Your task to perform on an android device: Clear the shopping cart on amazon.com. Search for usb-a to usb-b on amazon.com, select the first entry, add it to the cart, then select checkout. Image 0: 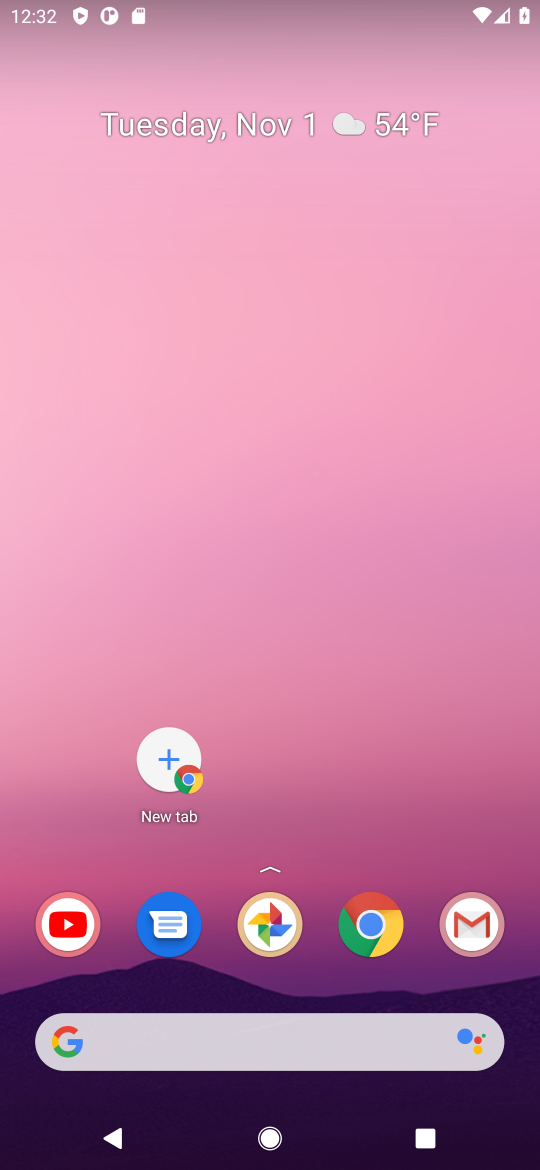
Step 0: click (383, 926)
Your task to perform on an android device: Clear the shopping cart on amazon.com. Search for usb-a to usb-b on amazon.com, select the first entry, add it to the cart, then select checkout. Image 1: 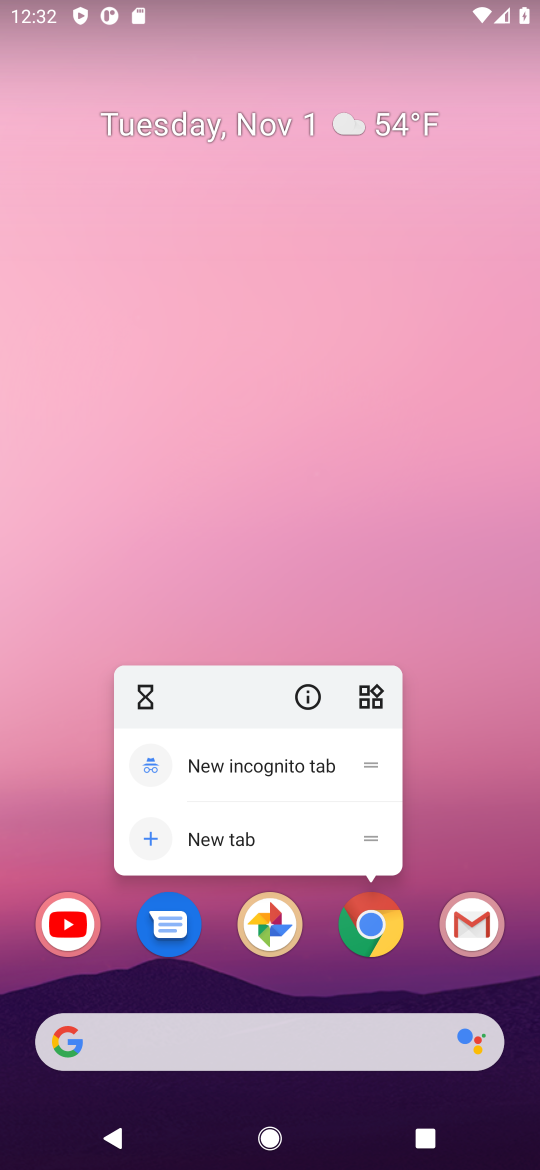
Step 1: click (382, 925)
Your task to perform on an android device: Clear the shopping cart on amazon.com. Search for usb-a to usb-b on amazon.com, select the first entry, add it to the cart, then select checkout. Image 2: 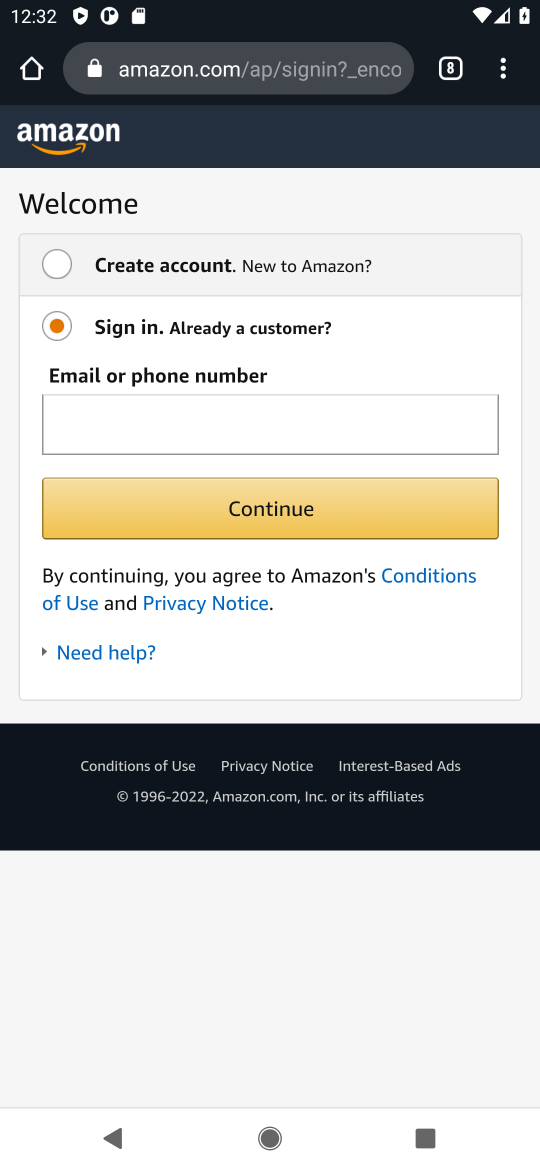
Step 2: click (270, 67)
Your task to perform on an android device: Clear the shopping cart on amazon.com. Search for usb-a to usb-b on amazon.com, select the first entry, add it to the cart, then select checkout. Image 3: 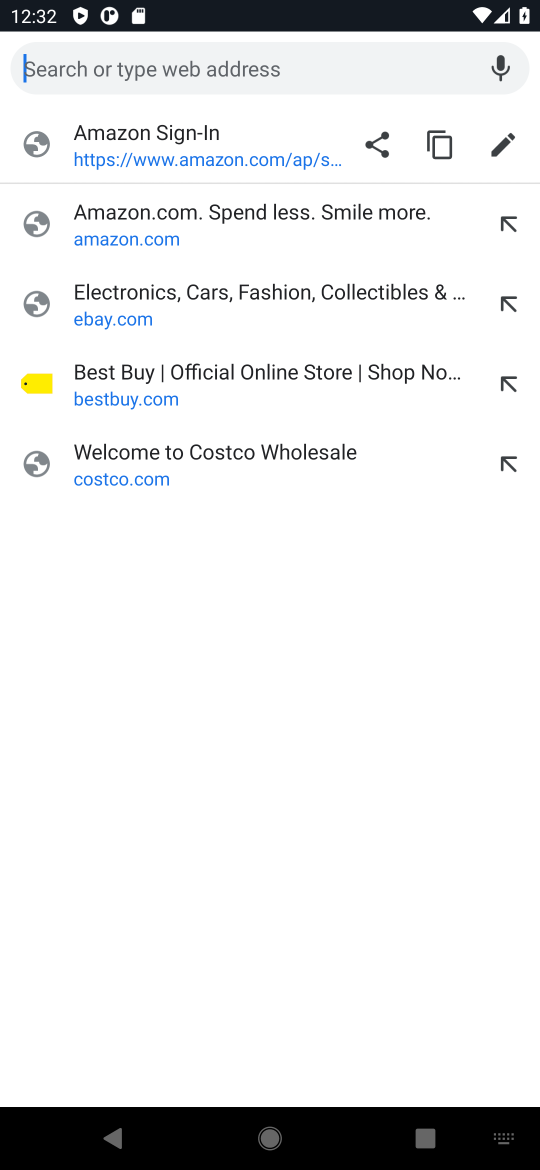
Step 3: click (134, 222)
Your task to perform on an android device: Clear the shopping cart on amazon.com. Search for usb-a to usb-b on amazon.com, select the first entry, add it to the cart, then select checkout. Image 4: 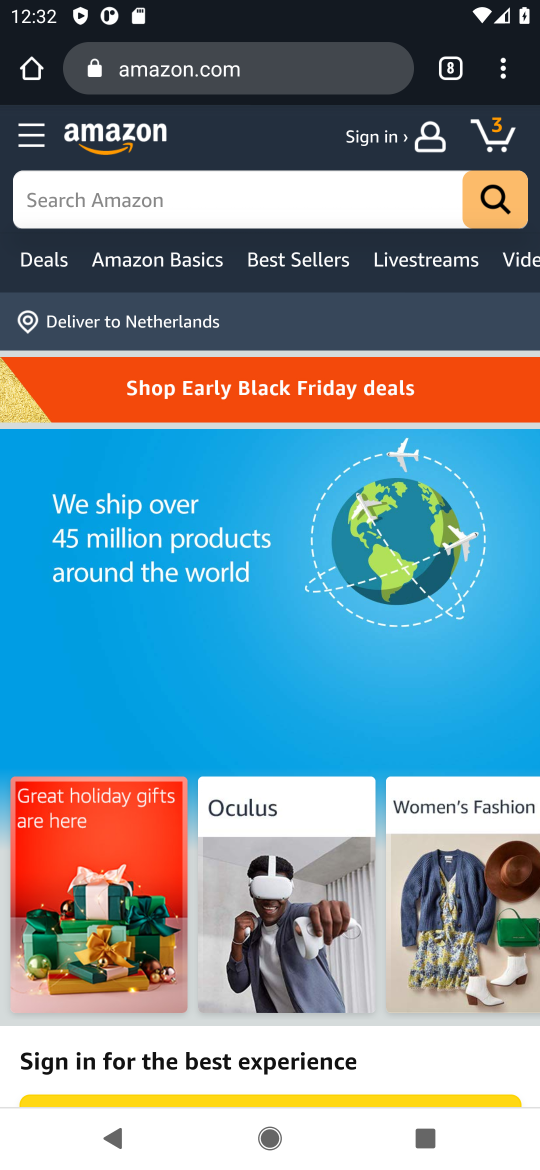
Step 4: click (171, 199)
Your task to perform on an android device: Clear the shopping cart on amazon.com. Search for usb-a to usb-b on amazon.com, select the first entry, add it to the cart, then select checkout. Image 5: 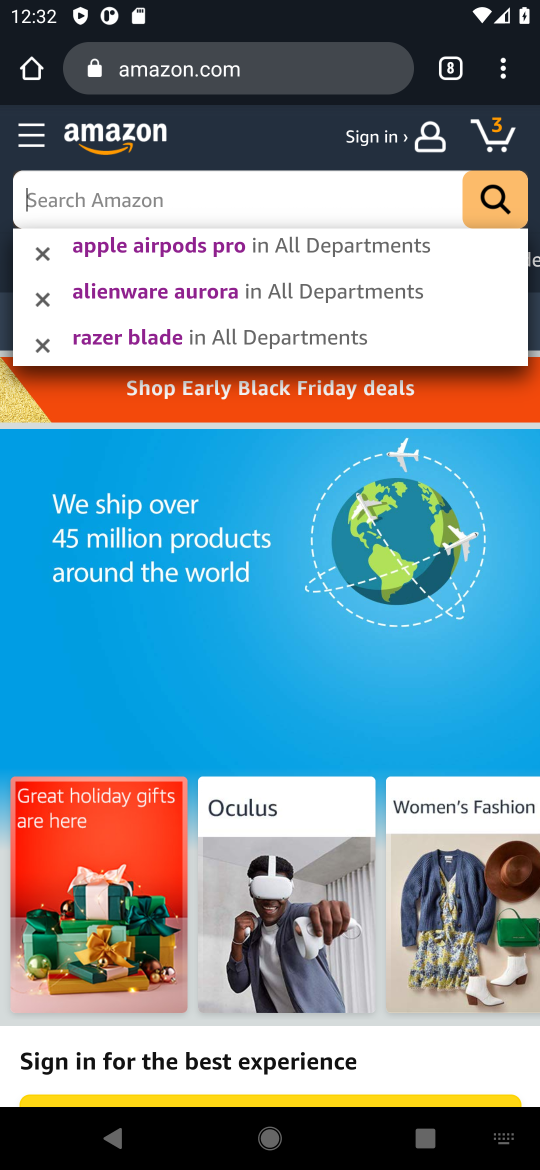
Step 5: type "usb-a to usb -b"
Your task to perform on an android device: Clear the shopping cart on amazon.com. Search for usb-a to usb-b on amazon.com, select the first entry, add it to the cart, then select checkout. Image 6: 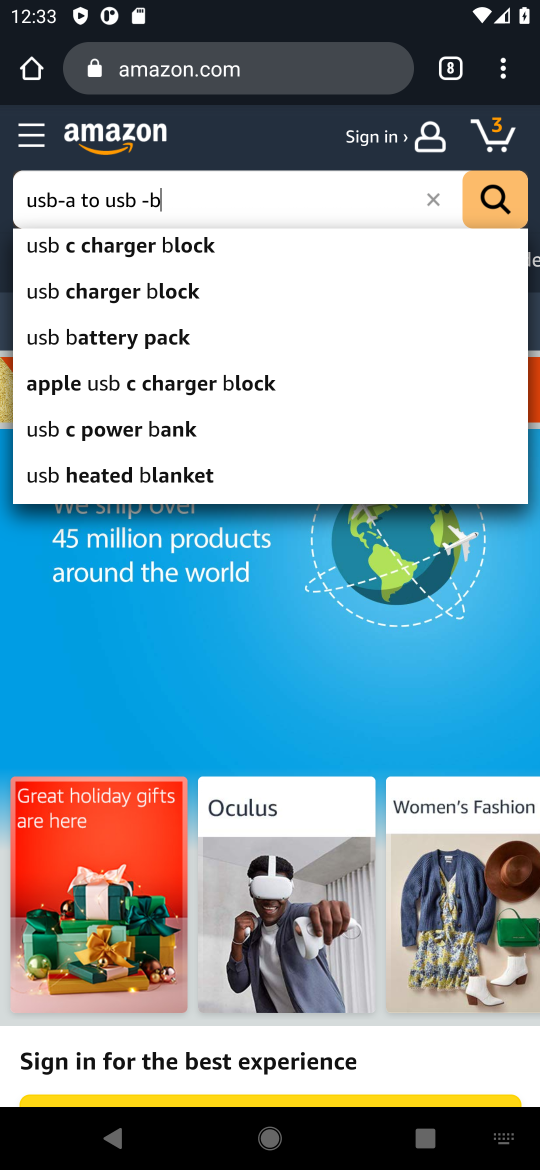
Step 6: click (507, 197)
Your task to perform on an android device: Clear the shopping cart on amazon.com. Search for usb-a to usb-b on amazon.com, select the first entry, add it to the cart, then select checkout. Image 7: 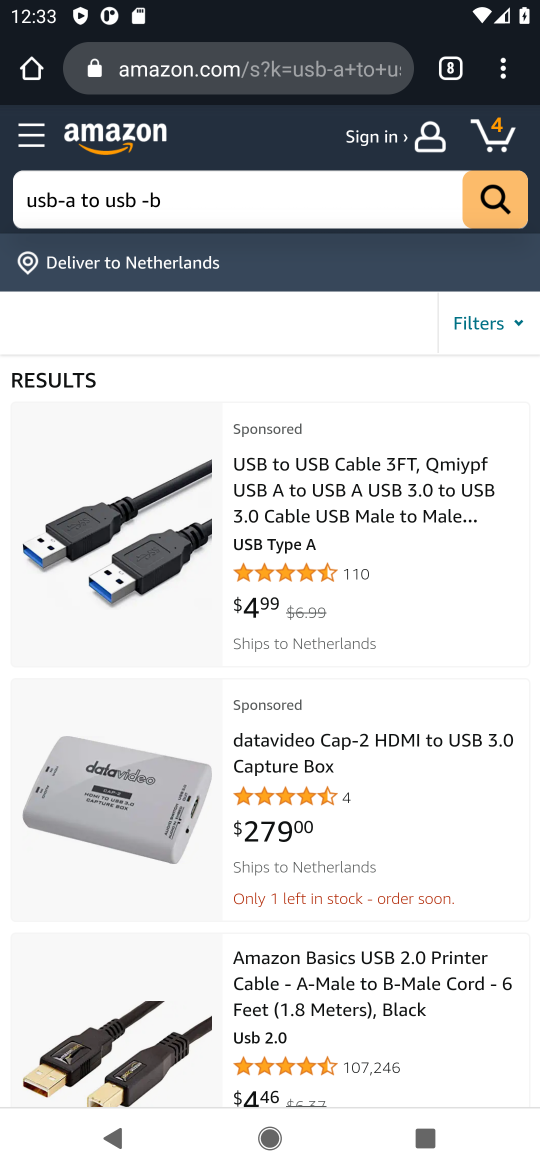
Step 7: drag from (106, 1000) to (207, 435)
Your task to perform on an android device: Clear the shopping cart on amazon.com. Search for usb-a to usb-b on amazon.com, select the first entry, add it to the cart, then select checkout. Image 8: 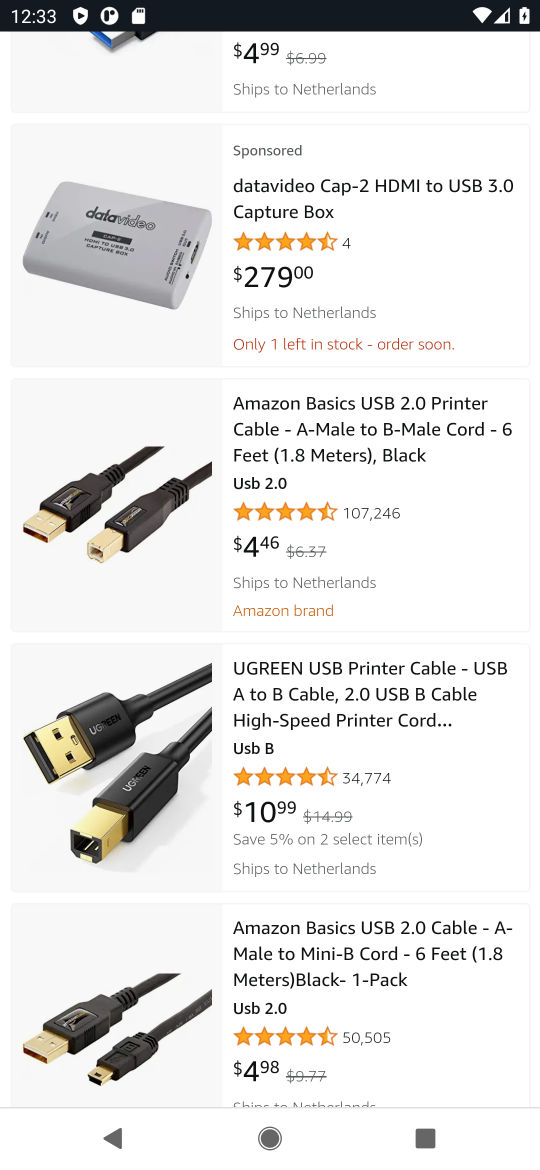
Step 8: click (117, 766)
Your task to perform on an android device: Clear the shopping cart on amazon.com. Search for usb-a to usb-b on amazon.com, select the first entry, add it to the cart, then select checkout. Image 9: 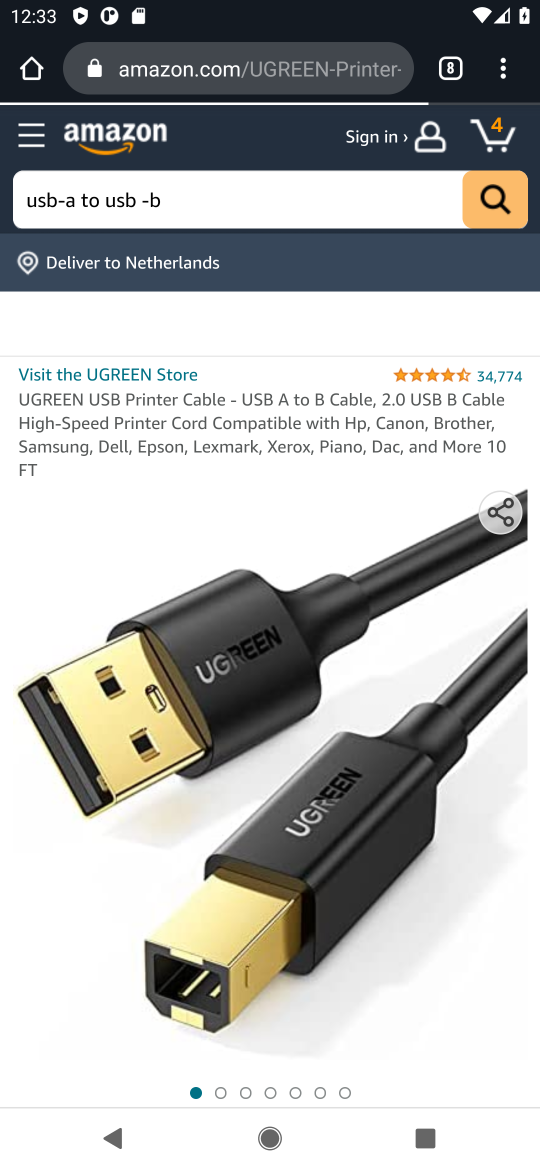
Step 9: drag from (157, 833) to (175, 513)
Your task to perform on an android device: Clear the shopping cart on amazon.com. Search for usb-a to usb-b on amazon.com, select the first entry, add it to the cart, then select checkout. Image 10: 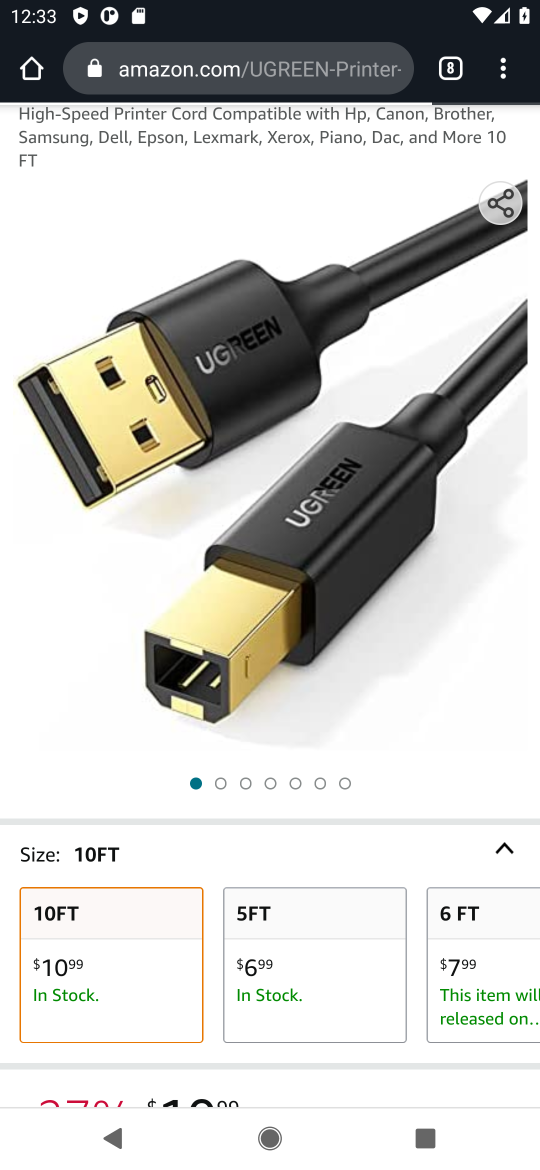
Step 10: drag from (357, 594) to (342, 329)
Your task to perform on an android device: Clear the shopping cart on amazon.com. Search for usb-a to usb-b on amazon.com, select the first entry, add it to the cart, then select checkout. Image 11: 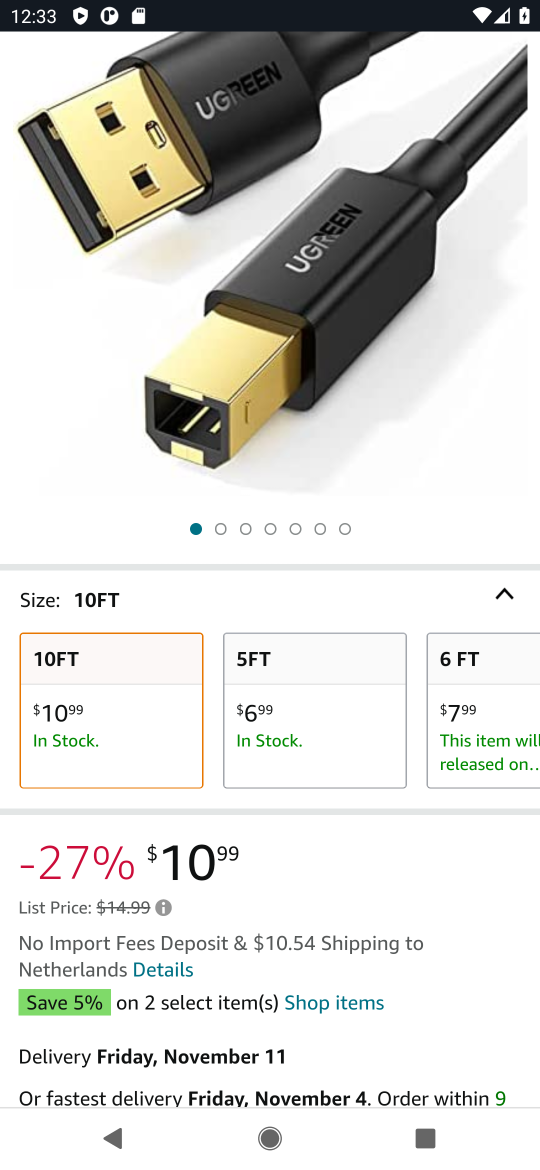
Step 11: drag from (264, 779) to (282, 579)
Your task to perform on an android device: Clear the shopping cart on amazon.com. Search for usb-a to usb-b on amazon.com, select the first entry, add it to the cart, then select checkout. Image 12: 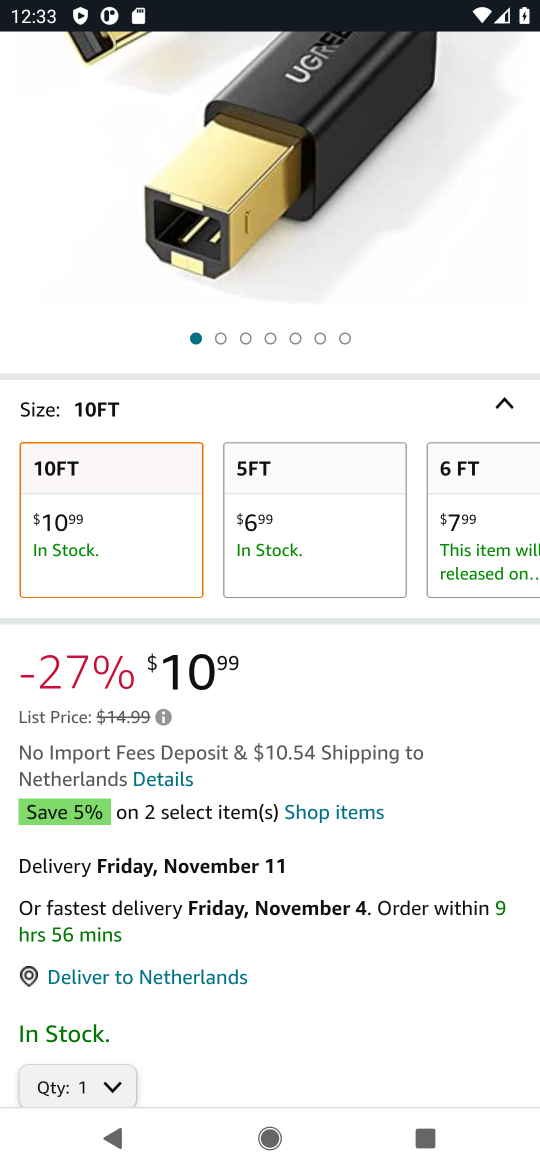
Step 12: drag from (233, 715) to (240, 398)
Your task to perform on an android device: Clear the shopping cart on amazon.com. Search for usb-a to usb-b on amazon.com, select the first entry, add it to the cart, then select checkout. Image 13: 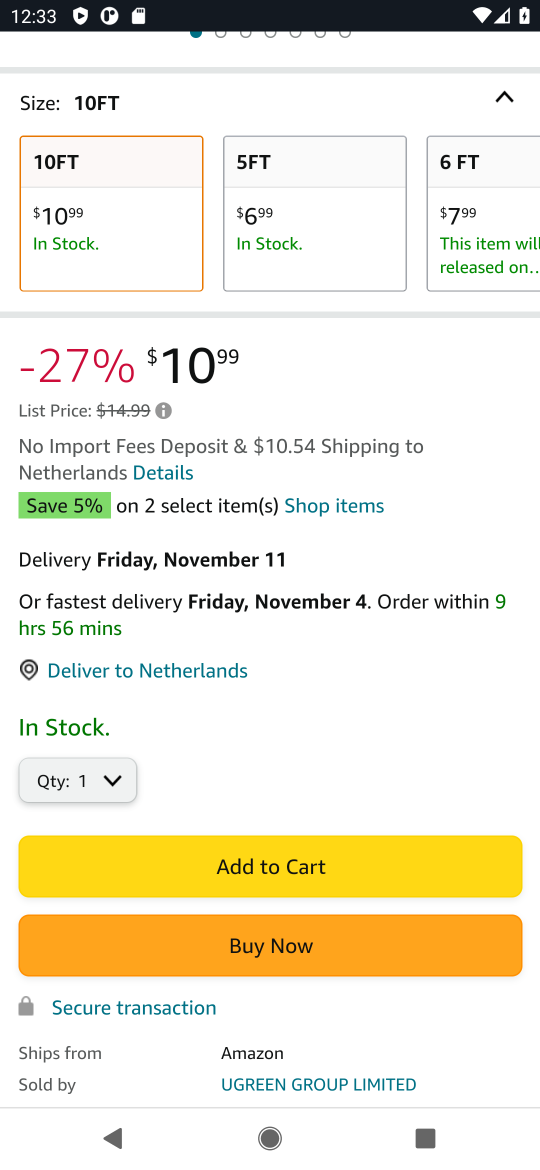
Step 13: drag from (332, 677) to (351, 545)
Your task to perform on an android device: Clear the shopping cart on amazon.com. Search for usb-a to usb-b on amazon.com, select the first entry, add it to the cart, then select checkout. Image 14: 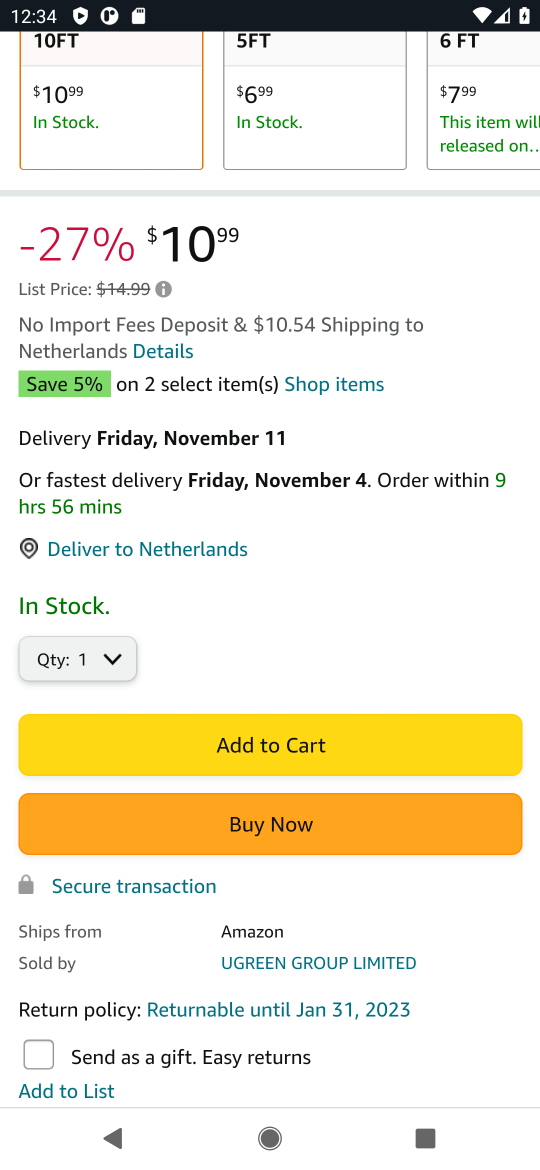
Step 14: click (232, 746)
Your task to perform on an android device: Clear the shopping cart on amazon.com. Search for usb-a to usb-b on amazon.com, select the first entry, add it to the cart, then select checkout. Image 15: 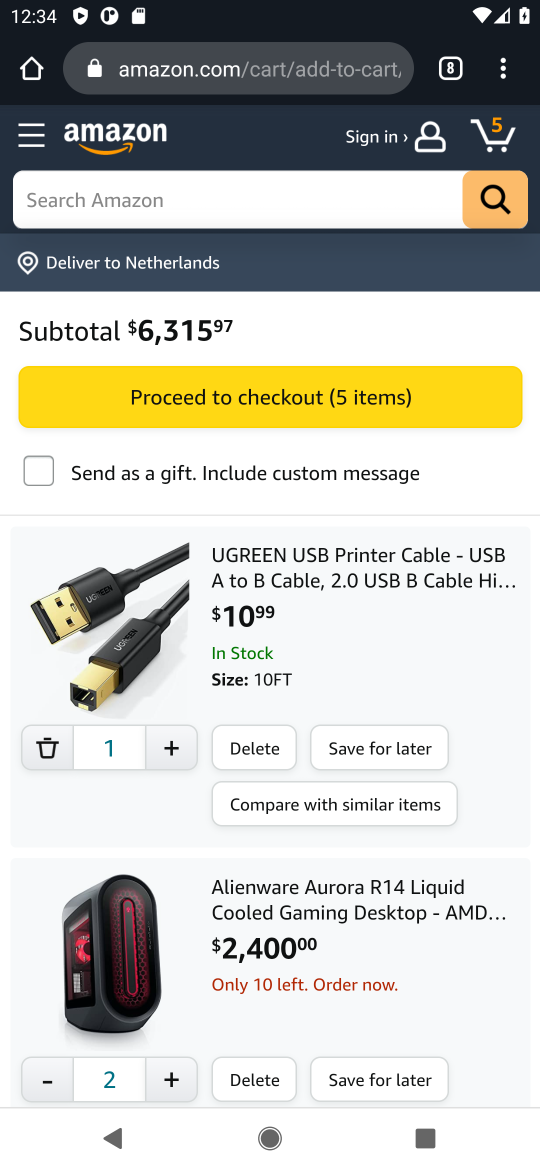
Step 15: drag from (119, 860) to (279, 11)
Your task to perform on an android device: Clear the shopping cart on amazon.com. Search for usb-a to usb-b on amazon.com, select the first entry, add it to the cart, then select checkout. Image 16: 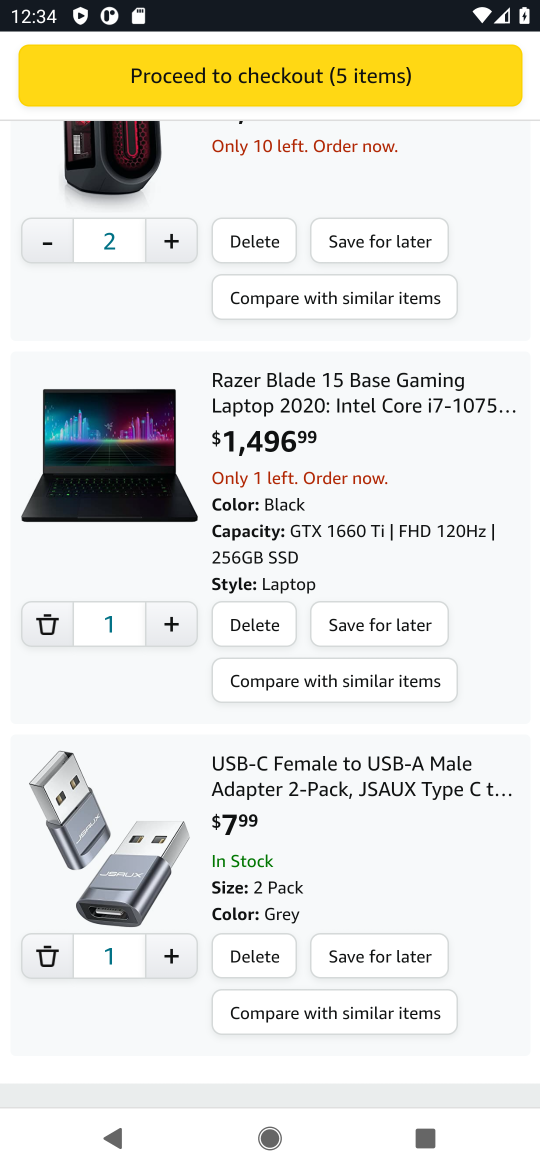
Step 16: drag from (299, 439) to (277, 931)
Your task to perform on an android device: Clear the shopping cart on amazon.com. Search for usb-a to usb-b on amazon.com, select the first entry, add it to the cart, then select checkout. Image 17: 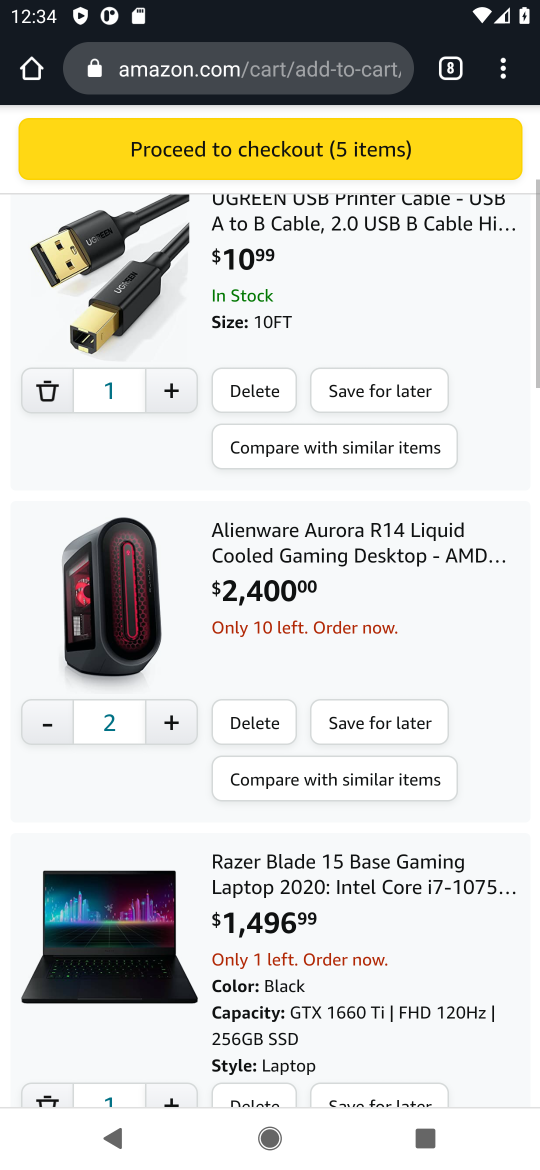
Step 17: drag from (294, 482) to (285, 980)
Your task to perform on an android device: Clear the shopping cart on amazon.com. Search for usb-a to usb-b on amazon.com, select the first entry, add it to the cart, then select checkout. Image 18: 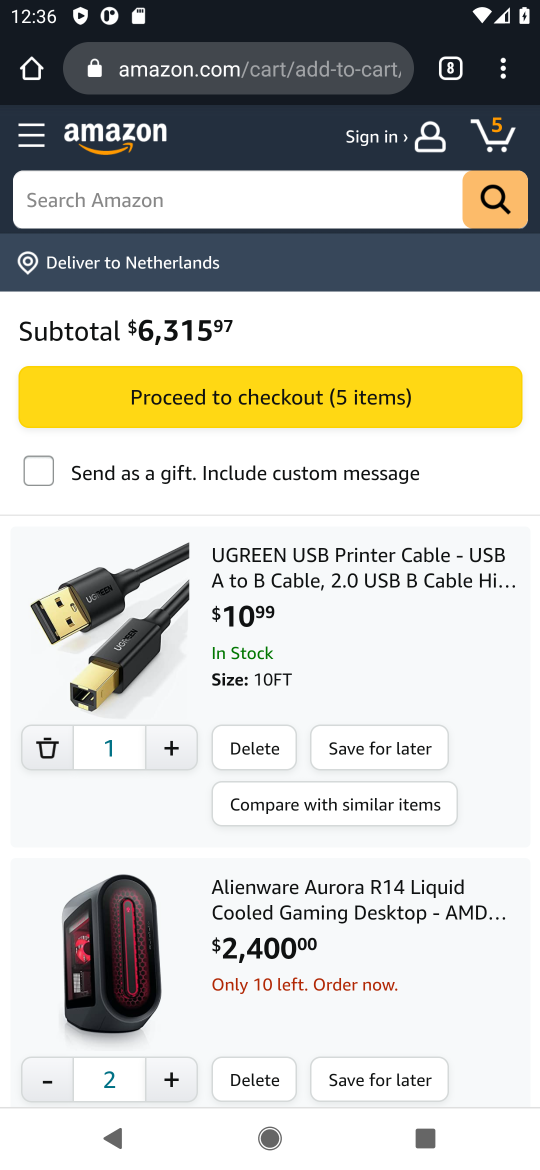
Step 18: click (274, 574)
Your task to perform on an android device: Clear the shopping cart on amazon.com. Search for usb-a to usb-b on amazon.com, select the first entry, add it to the cart, then select checkout. Image 19: 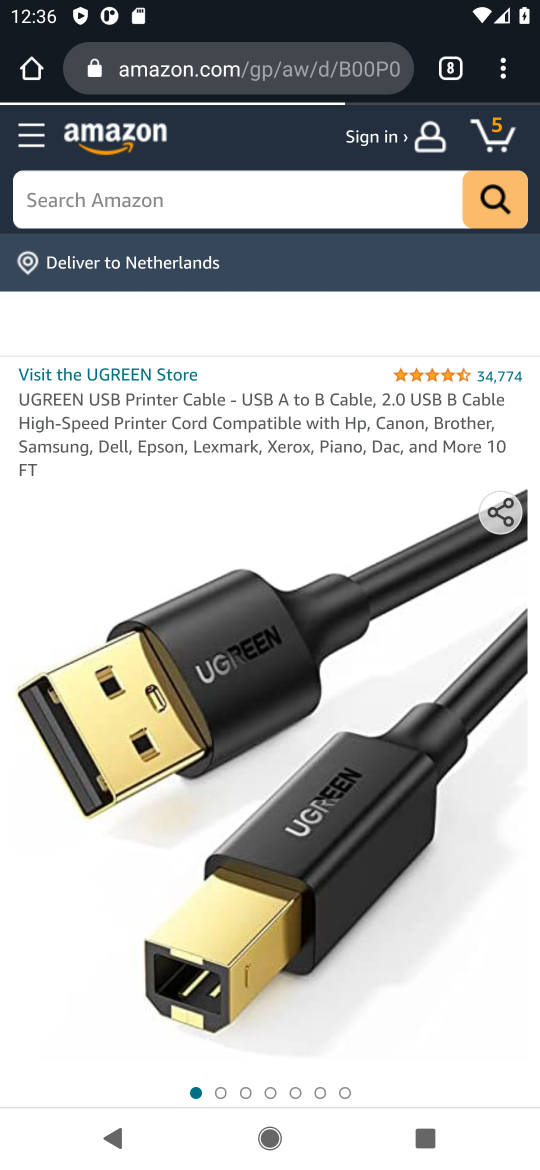
Step 19: drag from (223, 767) to (185, 465)
Your task to perform on an android device: Clear the shopping cart on amazon.com. Search for usb-a to usb-b on amazon.com, select the first entry, add it to the cart, then select checkout. Image 20: 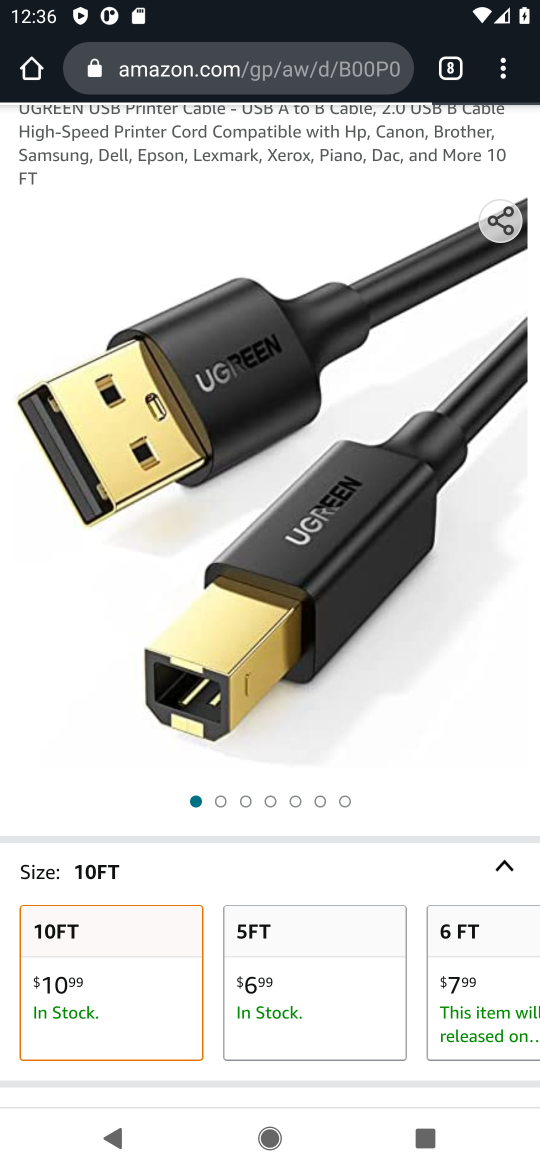
Step 20: drag from (209, 549) to (219, 347)
Your task to perform on an android device: Clear the shopping cart on amazon.com. Search for usb-a to usb-b on amazon.com, select the first entry, add it to the cart, then select checkout. Image 21: 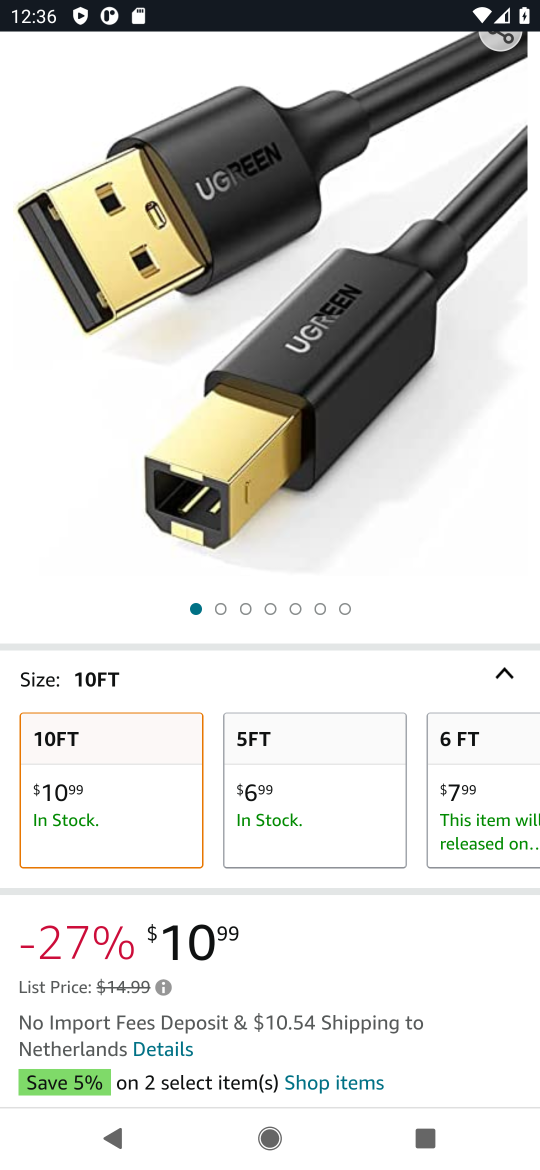
Step 21: drag from (325, 892) to (292, 486)
Your task to perform on an android device: Clear the shopping cart on amazon.com. Search for usb-a to usb-b on amazon.com, select the first entry, add it to the cart, then select checkout. Image 22: 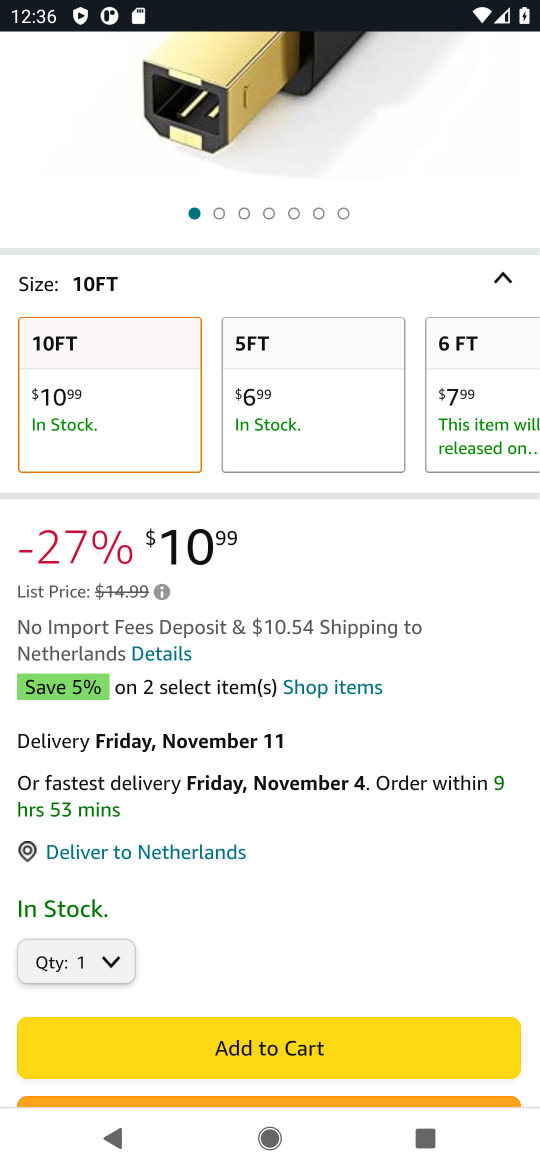
Step 22: click (298, 1044)
Your task to perform on an android device: Clear the shopping cart on amazon.com. Search for usb-a to usb-b on amazon.com, select the first entry, add it to the cart, then select checkout. Image 23: 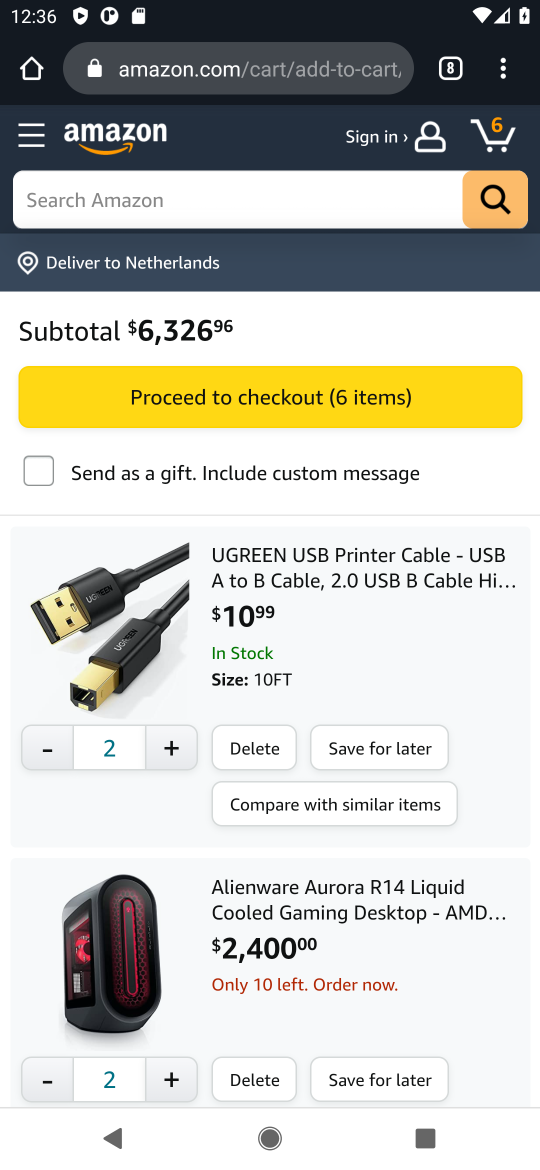
Step 23: click (249, 409)
Your task to perform on an android device: Clear the shopping cart on amazon.com. Search for usb-a to usb-b on amazon.com, select the first entry, add it to the cart, then select checkout. Image 24: 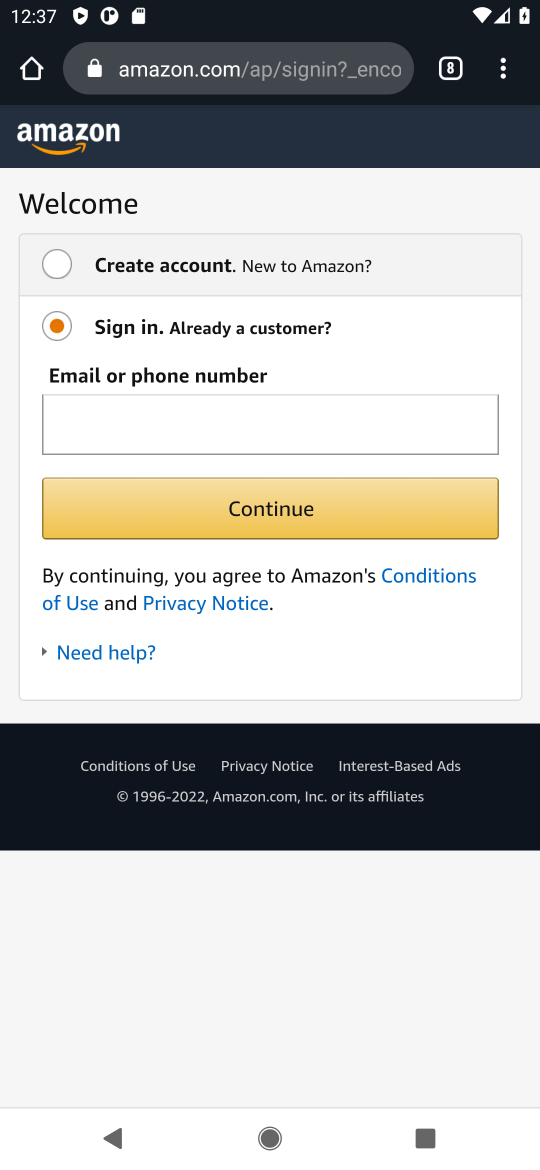
Step 24: task complete